Your task to perform on an android device: Open Google Image 0: 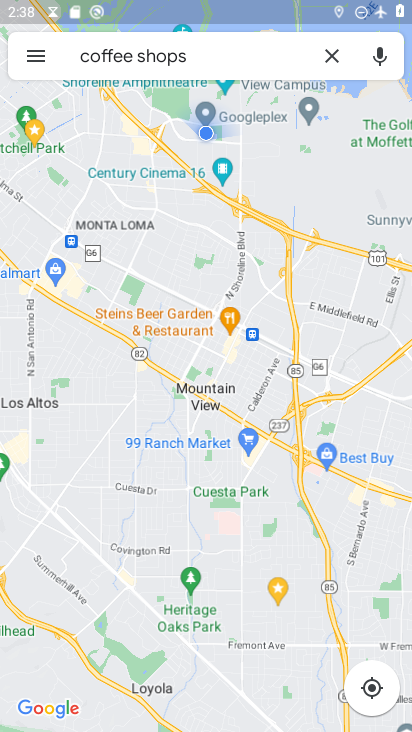
Step 0: press home button
Your task to perform on an android device: Open Google Image 1: 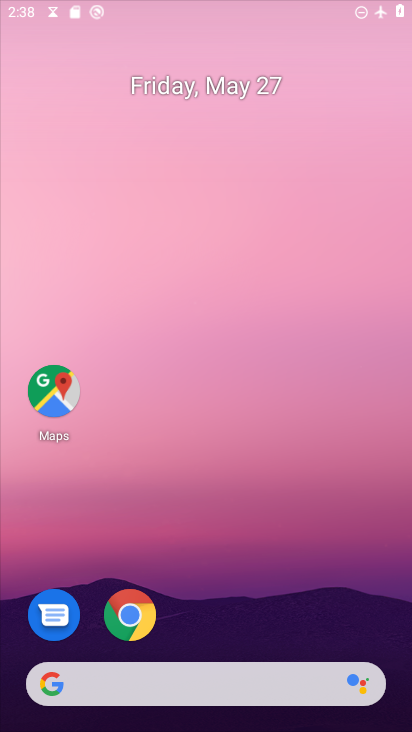
Step 1: drag from (231, 560) to (254, 106)
Your task to perform on an android device: Open Google Image 2: 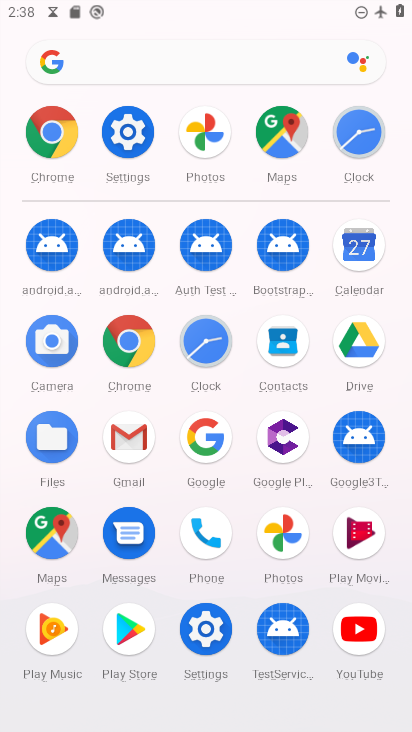
Step 2: click (191, 454)
Your task to perform on an android device: Open Google Image 3: 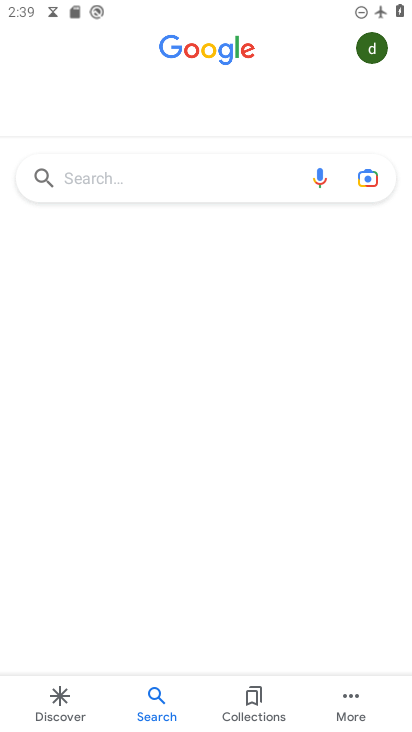
Step 3: task complete